Your task to perform on an android device: turn on sleep mode Image 0: 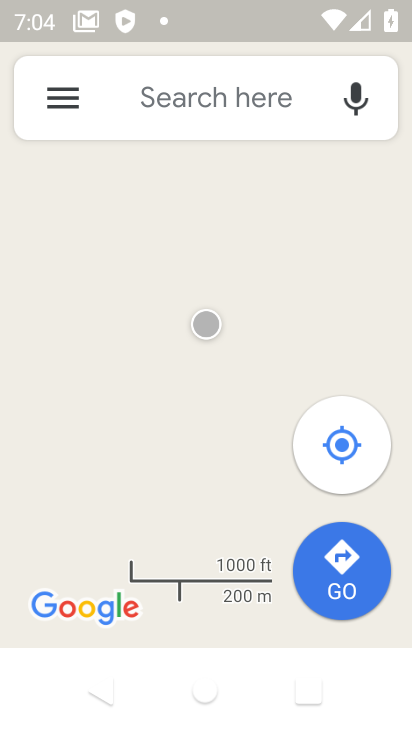
Step 0: press home button
Your task to perform on an android device: turn on sleep mode Image 1: 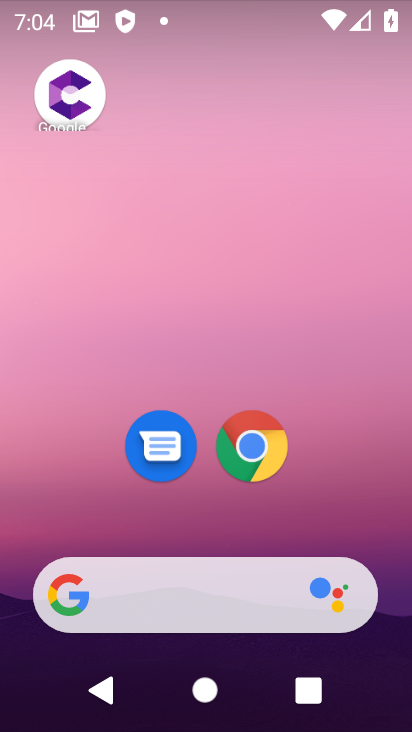
Step 1: drag from (204, 524) to (184, 19)
Your task to perform on an android device: turn on sleep mode Image 2: 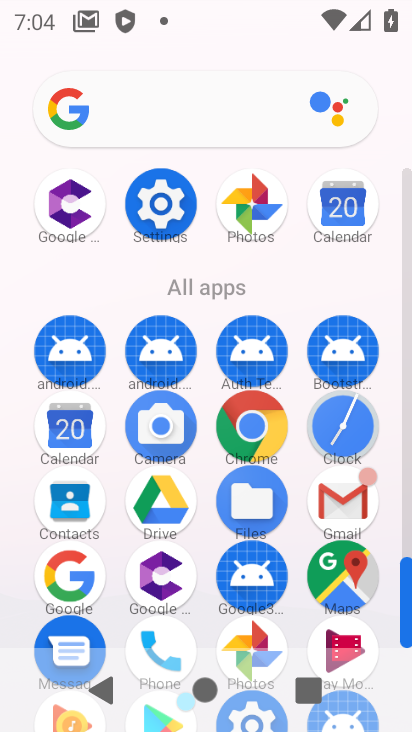
Step 2: click (167, 196)
Your task to perform on an android device: turn on sleep mode Image 3: 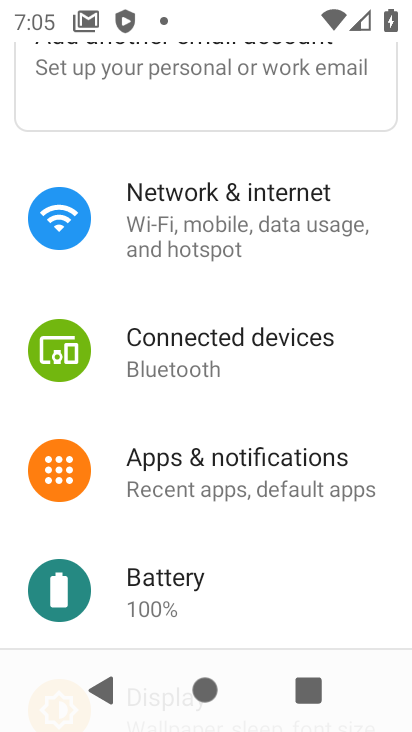
Step 3: drag from (245, 554) to (278, 269)
Your task to perform on an android device: turn on sleep mode Image 4: 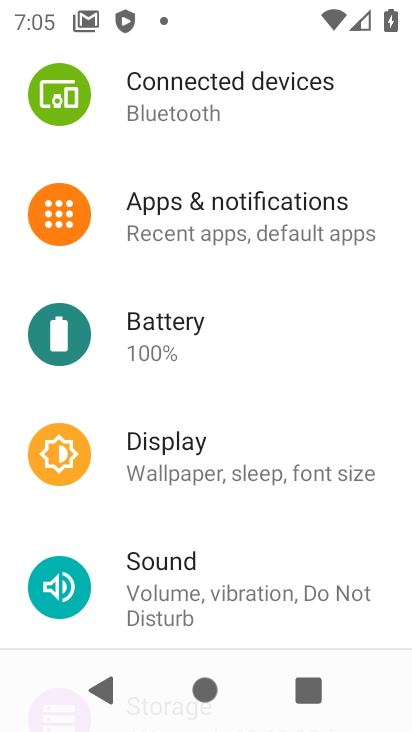
Step 4: click (148, 437)
Your task to perform on an android device: turn on sleep mode Image 5: 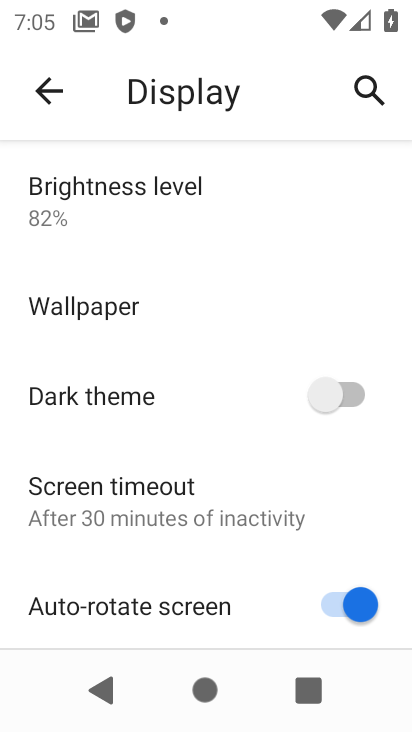
Step 5: drag from (218, 556) to (202, 70)
Your task to perform on an android device: turn on sleep mode Image 6: 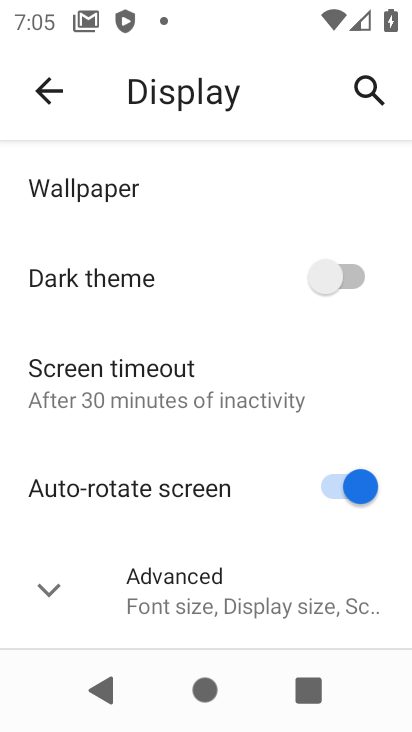
Step 6: click (43, 581)
Your task to perform on an android device: turn on sleep mode Image 7: 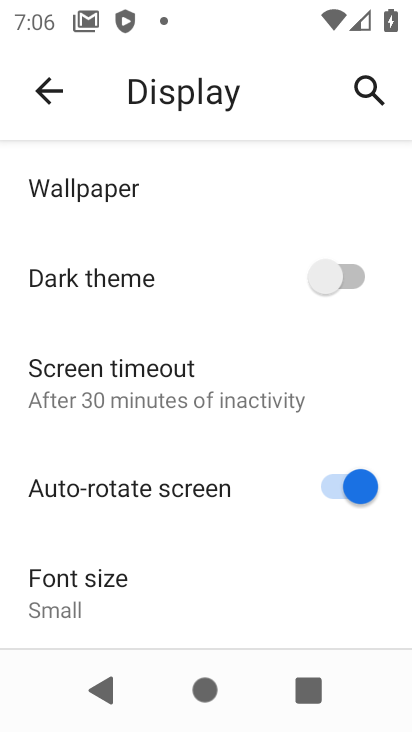
Step 7: task complete